Your task to perform on an android device: Open CNN.com Image 0: 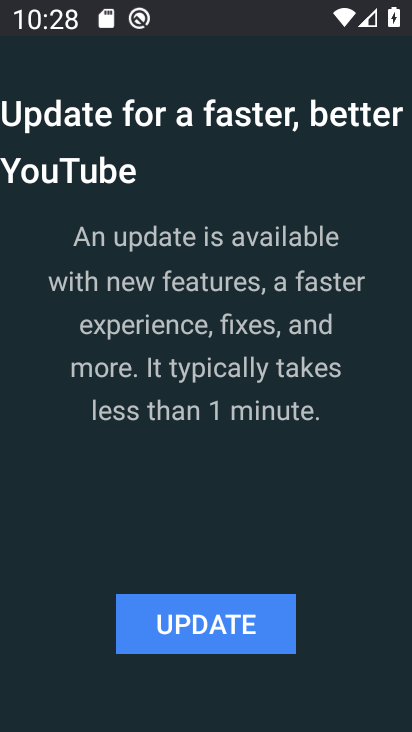
Step 0: press home button
Your task to perform on an android device: Open CNN.com Image 1: 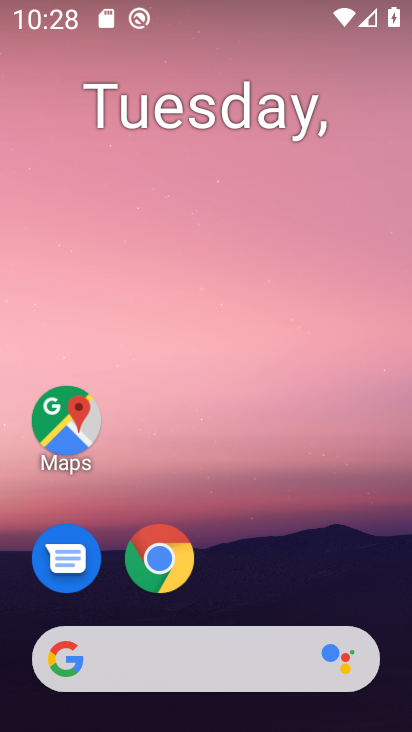
Step 1: drag from (347, 552) to (343, 69)
Your task to perform on an android device: Open CNN.com Image 2: 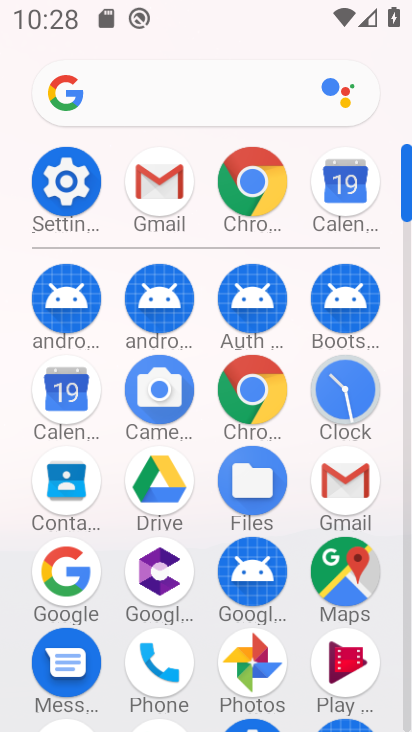
Step 2: click (257, 393)
Your task to perform on an android device: Open CNN.com Image 3: 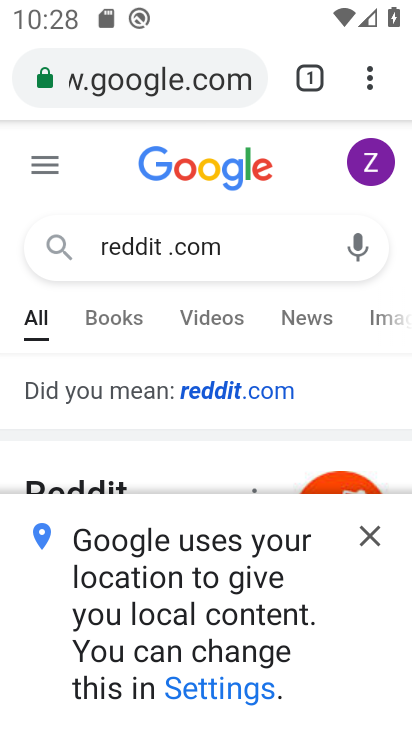
Step 3: click (196, 83)
Your task to perform on an android device: Open CNN.com Image 4: 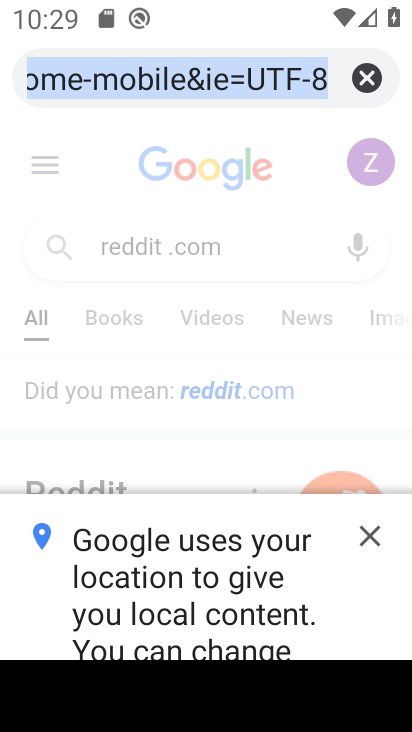
Step 4: type "cnn.com"
Your task to perform on an android device: Open CNN.com Image 5: 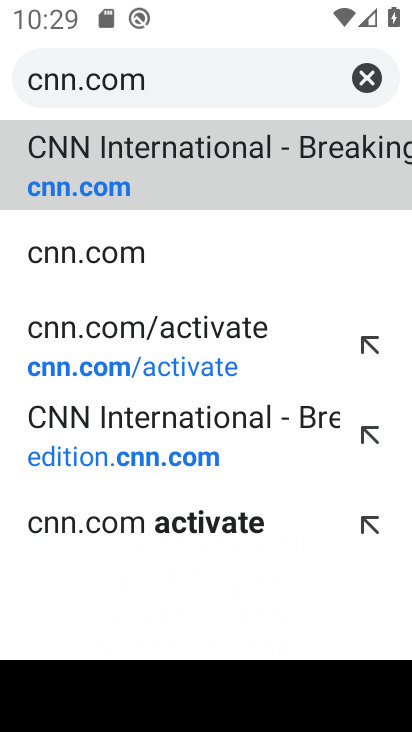
Step 5: click (265, 163)
Your task to perform on an android device: Open CNN.com Image 6: 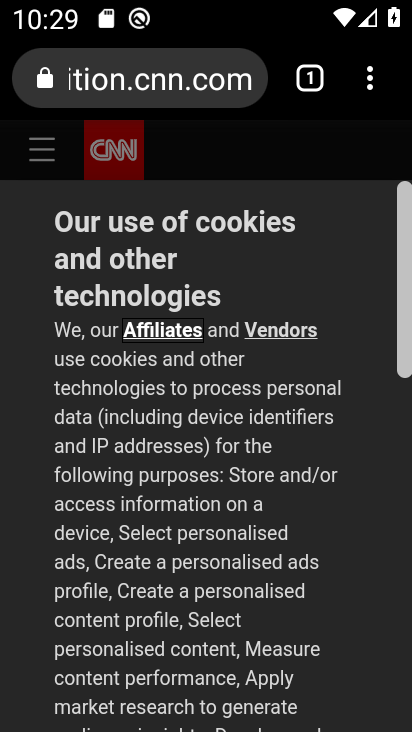
Step 6: task complete